Your task to perform on an android device: uninstall "DoorDash - Food Delivery" Image 0: 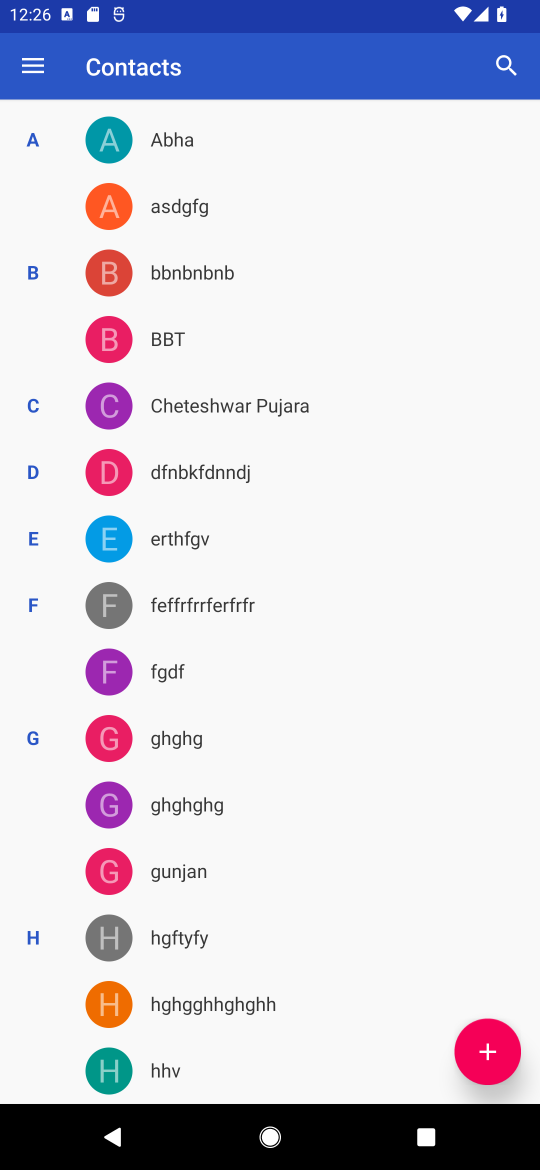
Step 0: press home button
Your task to perform on an android device: uninstall "DoorDash - Food Delivery" Image 1: 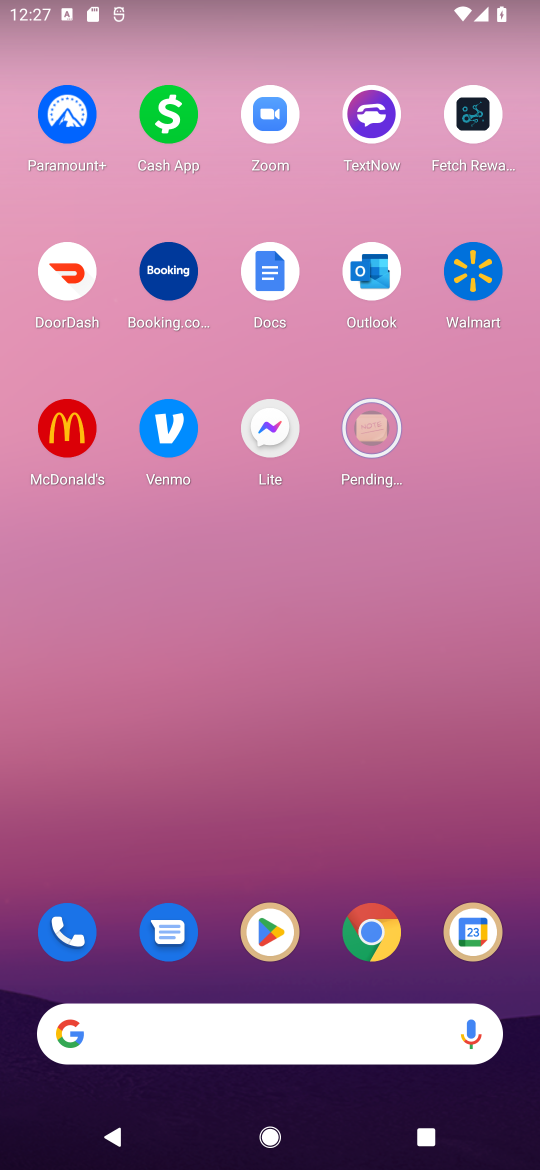
Step 1: click (267, 931)
Your task to perform on an android device: uninstall "DoorDash - Food Delivery" Image 2: 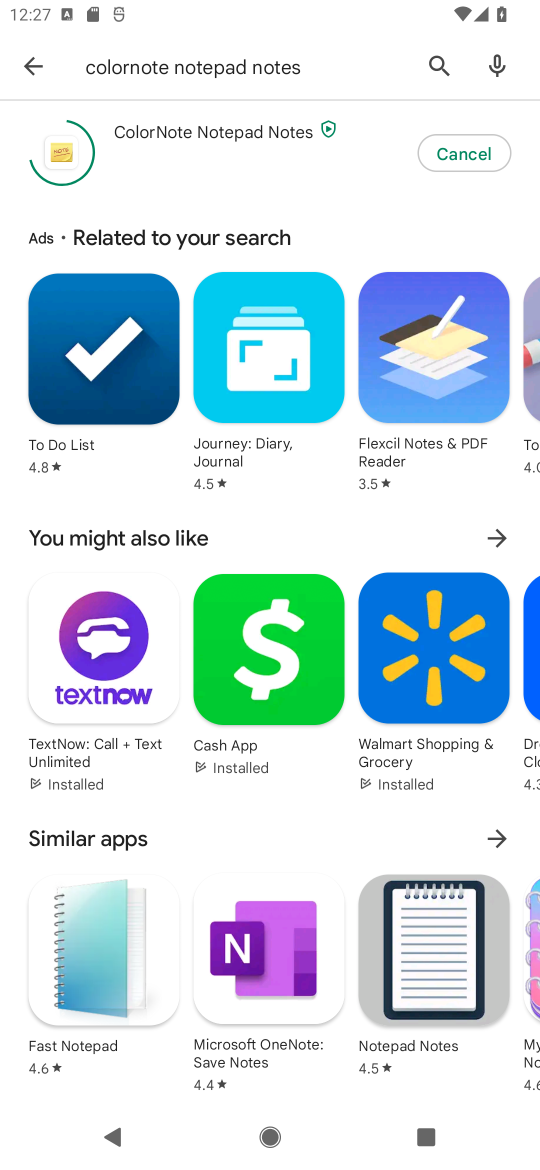
Step 2: click (423, 48)
Your task to perform on an android device: uninstall "DoorDash - Food Delivery" Image 3: 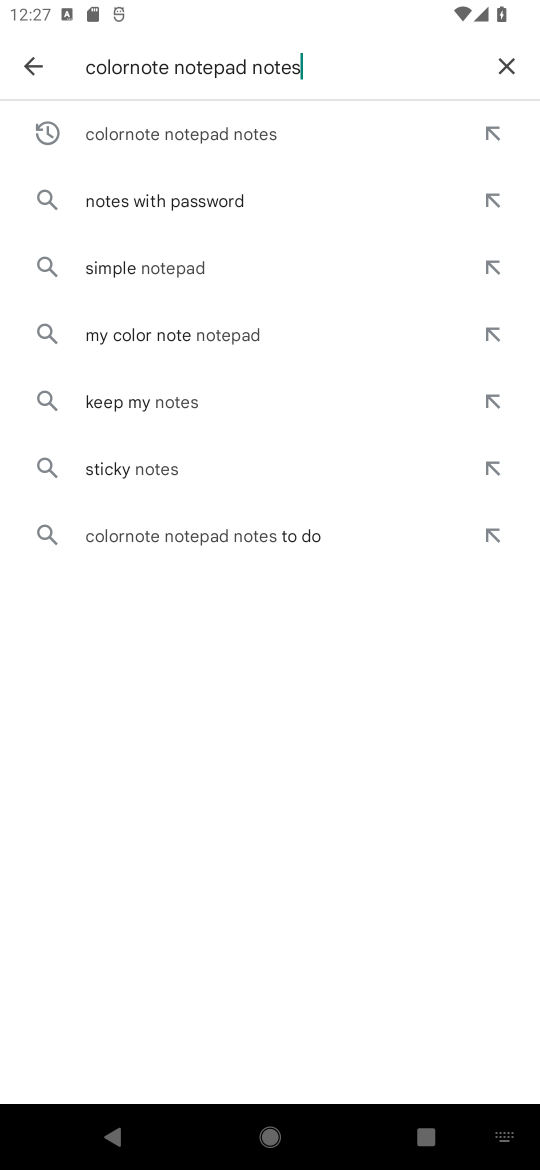
Step 3: click (513, 75)
Your task to perform on an android device: uninstall "DoorDash - Food Delivery" Image 4: 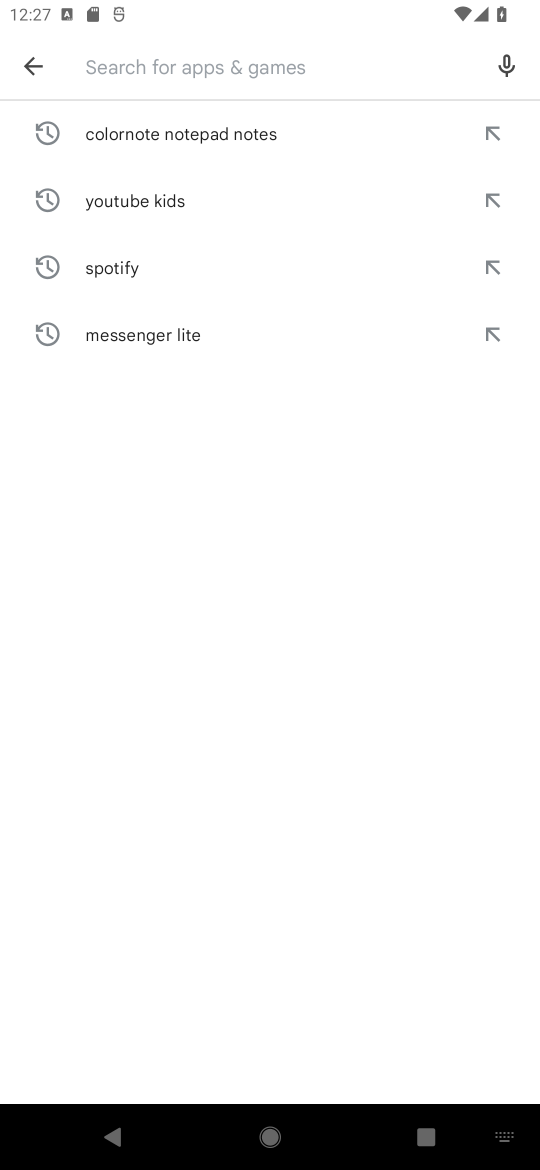
Step 4: type "DoorDash"
Your task to perform on an android device: uninstall "DoorDash - Food Delivery" Image 5: 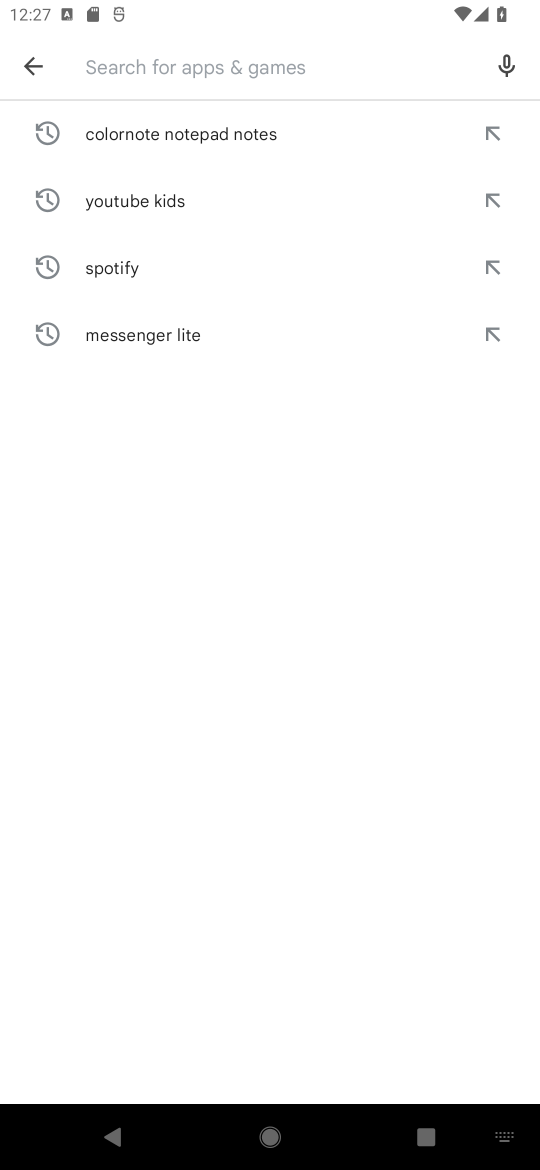
Step 5: click (245, 737)
Your task to perform on an android device: uninstall "DoorDash - Food Delivery" Image 6: 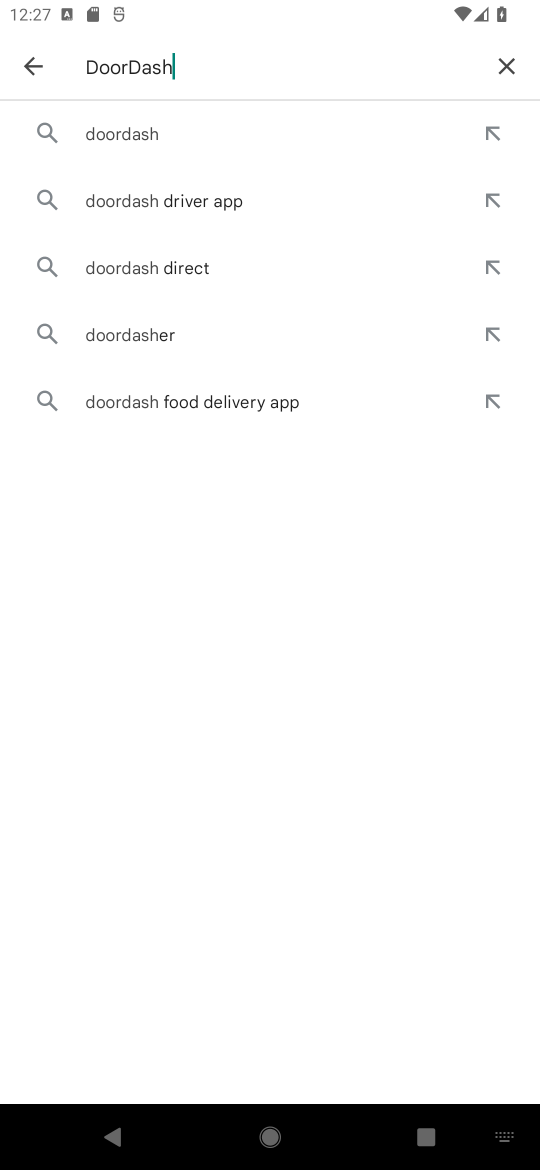
Step 6: click (144, 135)
Your task to perform on an android device: uninstall "DoorDash - Food Delivery" Image 7: 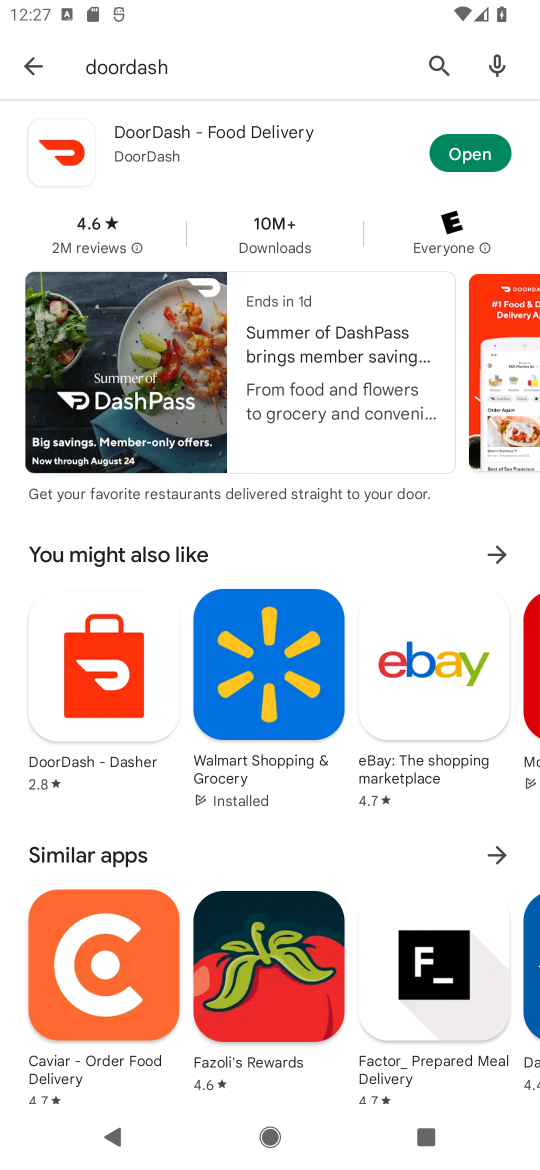
Step 7: click (188, 148)
Your task to perform on an android device: uninstall "DoorDash - Food Delivery" Image 8: 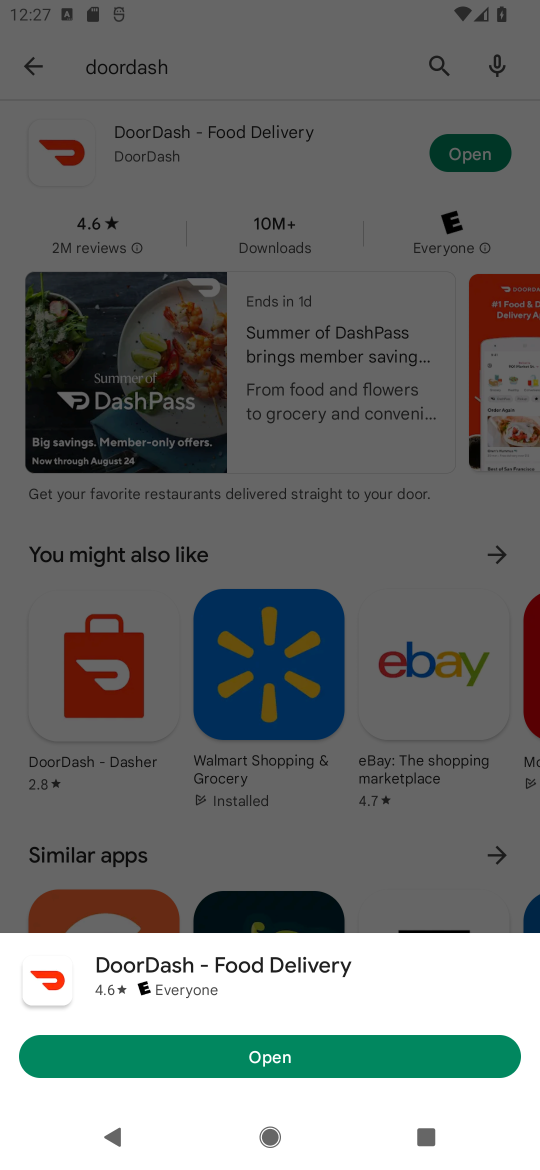
Step 8: click (196, 144)
Your task to perform on an android device: uninstall "DoorDash - Food Delivery" Image 9: 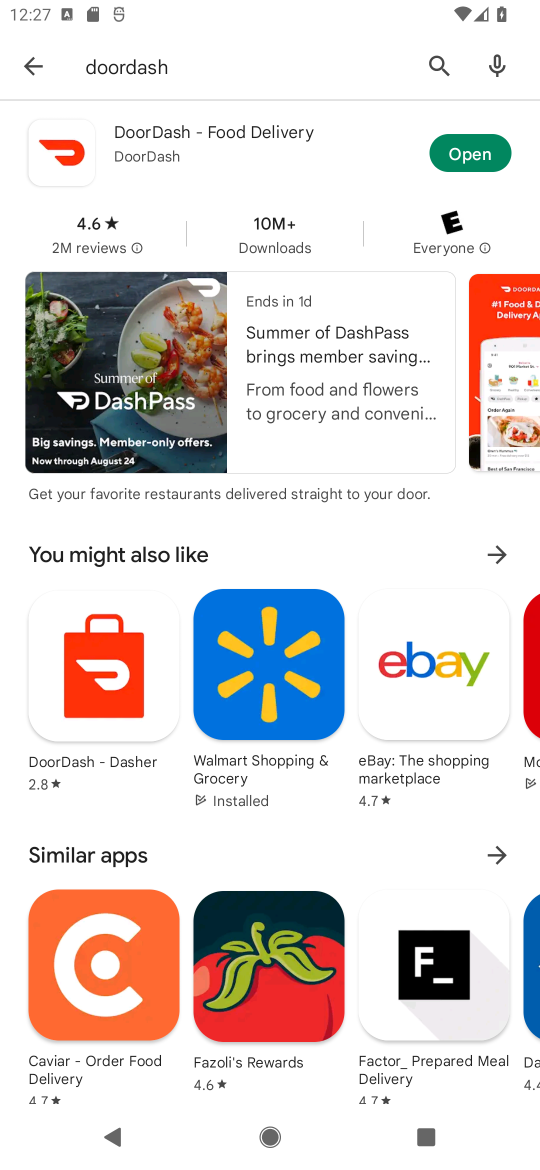
Step 9: click (59, 154)
Your task to perform on an android device: uninstall "DoorDash - Food Delivery" Image 10: 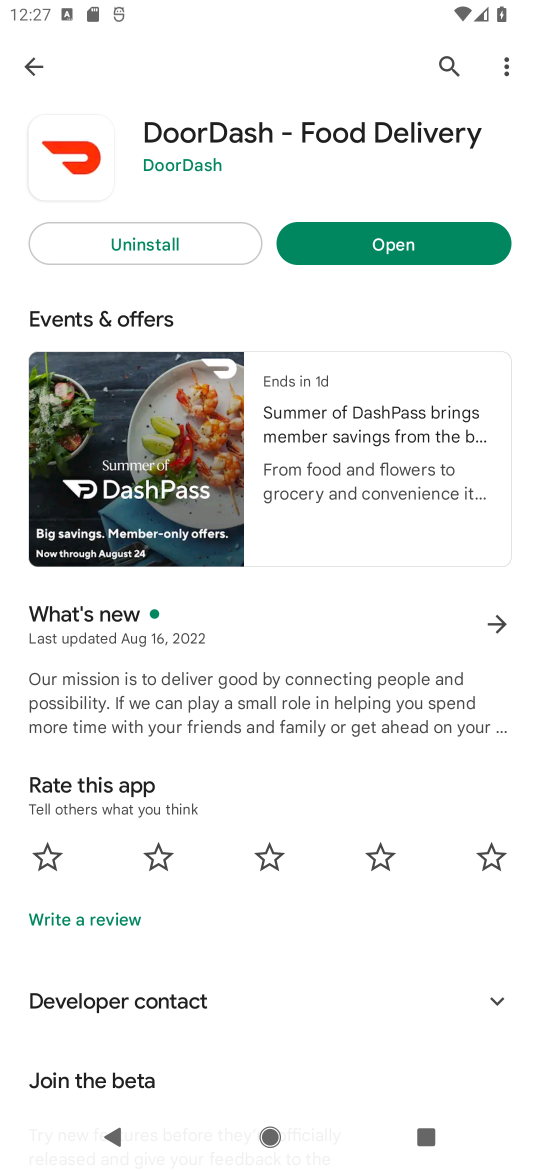
Step 10: click (162, 238)
Your task to perform on an android device: uninstall "DoorDash - Food Delivery" Image 11: 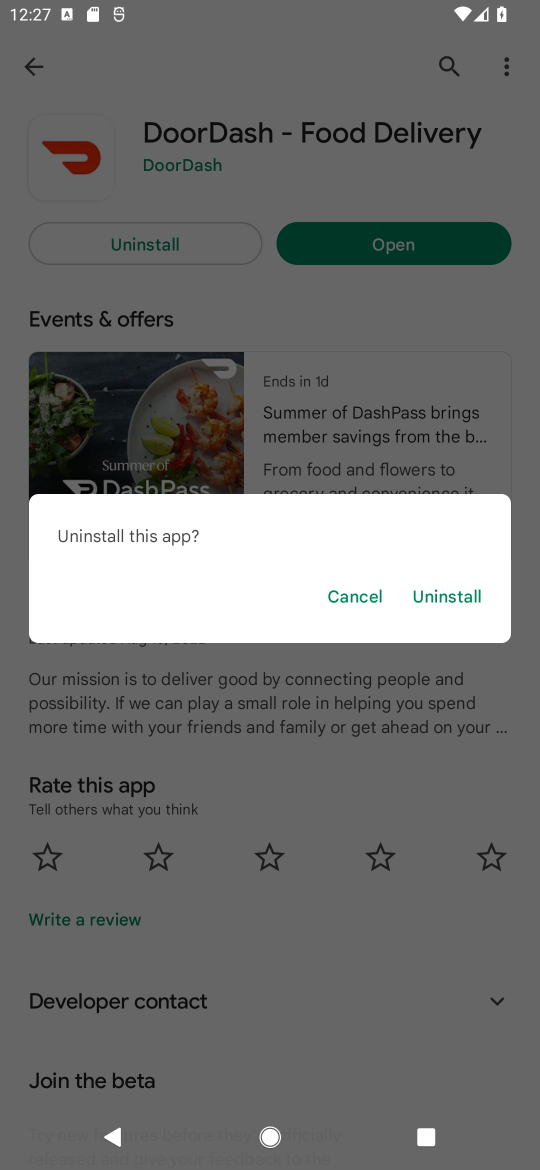
Step 11: click (433, 597)
Your task to perform on an android device: uninstall "DoorDash - Food Delivery" Image 12: 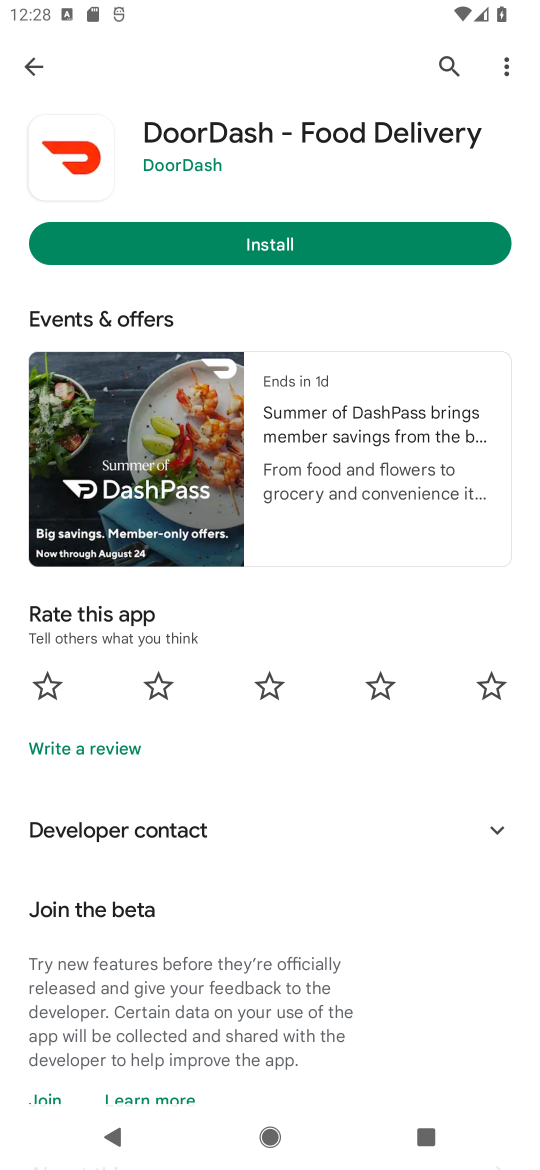
Step 12: task complete